Your task to perform on an android device: Clear the shopping cart on walmart.com. Search for "logitech g910" on walmart.com, select the first entry, add it to the cart, then select checkout. Image 0: 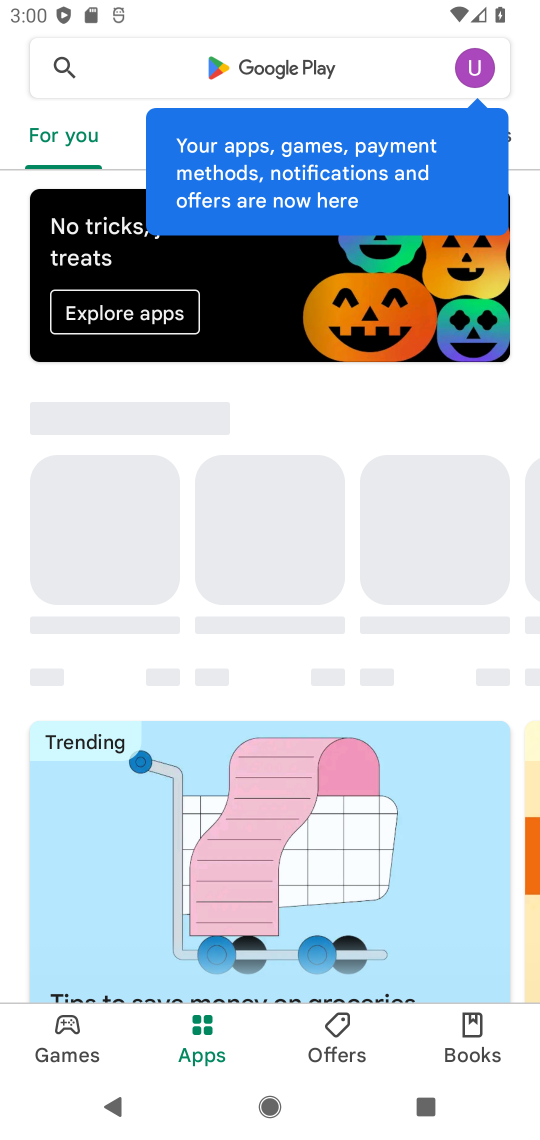
Step 0: press home button
Your task to perform on an android device: Clear the shopping cart on walmart.com. Search for "logitech g910" on walmart.com, select the first entry, add it to the cart, then select checkout. Image 1: 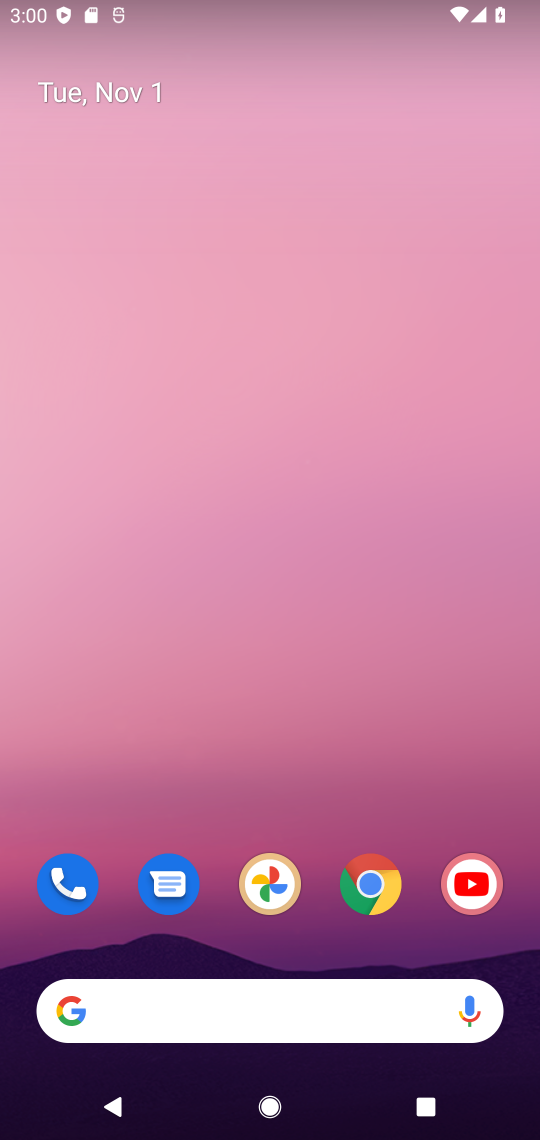
Step 1: click (363, 902)
Your task to perform on an android device: Clear the shopping cart on walmart.com. Search for "logitech g910" on walmart.com, select the first entry, add it to the cart, then select checkout. Image 2: 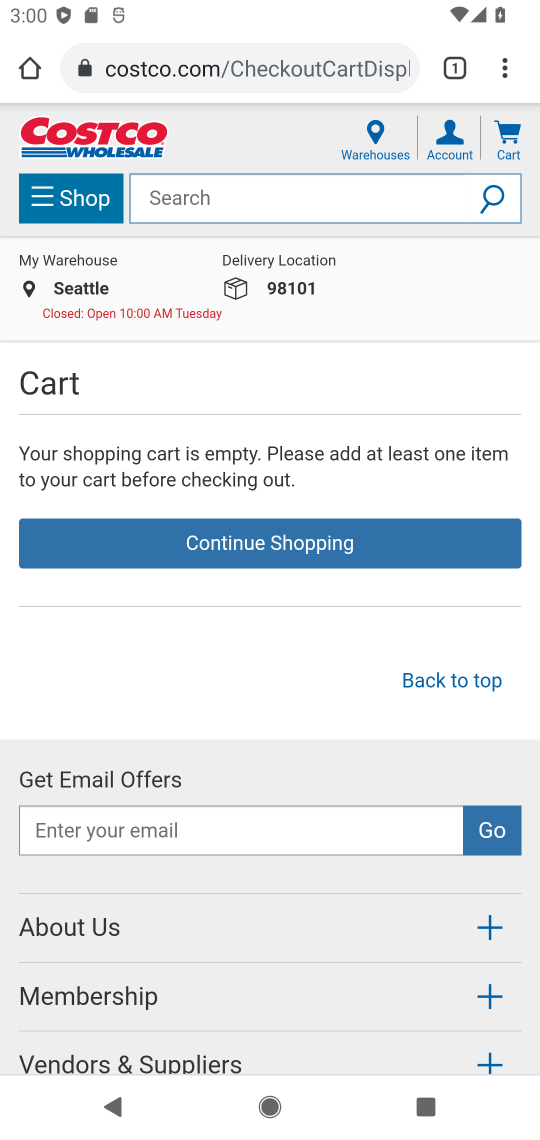
Step 2: click (314, 65)
Your task to perform on an android device: Clear the shopping cart on walmart.com. Search for "logitech g910" on walmart.com, select the first entry, add it to the cart, then select checkout. Image 3: 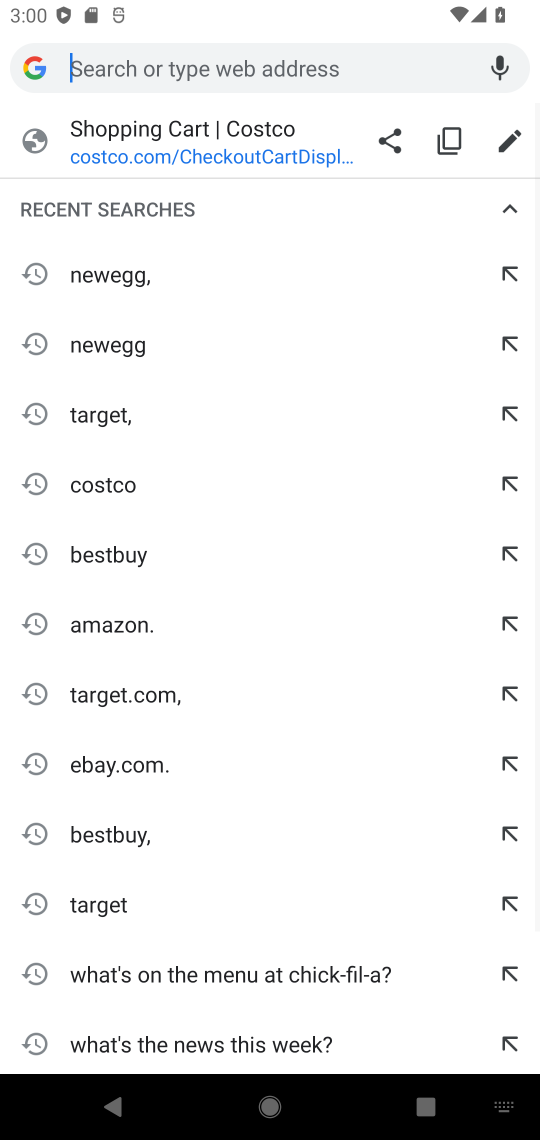
Step 3: type "walmart.com"
Your task to perform on an android device: Clear the shopping cart on walmart.com. Search for "logitech g910" on walmart.com, select the first entry, add it to the cart, then select checkout. Image 4: 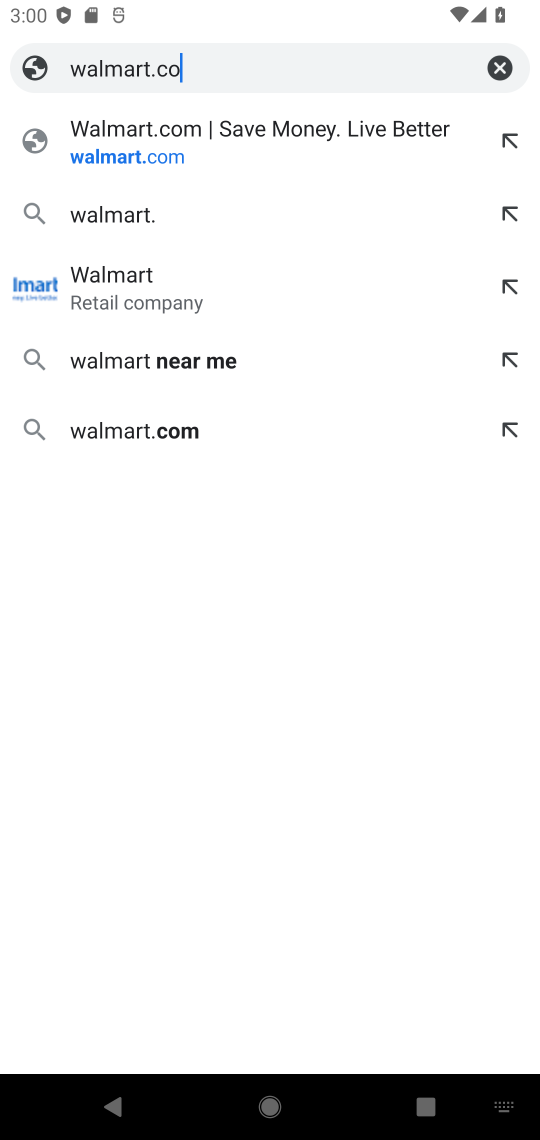
Step 4: press enter
Your task to perform on an android device: Clear the shopping cart on walmart.com. Search for "logitech g910" on walmart.com, select the first entry, add it to the cart, then select checkout. Image 5: 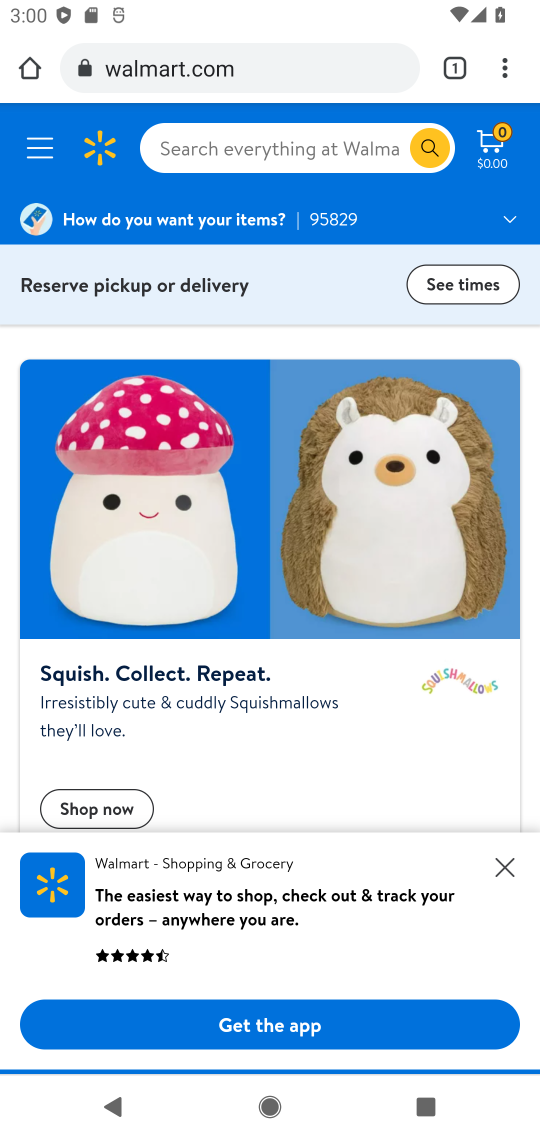
Step 5: click (483, 144)
Your task to perform on an android device: Clear the shopping cart on walmart.com. Search for "logitech g910" on walmart.com, select the first entry, add it to the cart, then select checkout. Image 6: 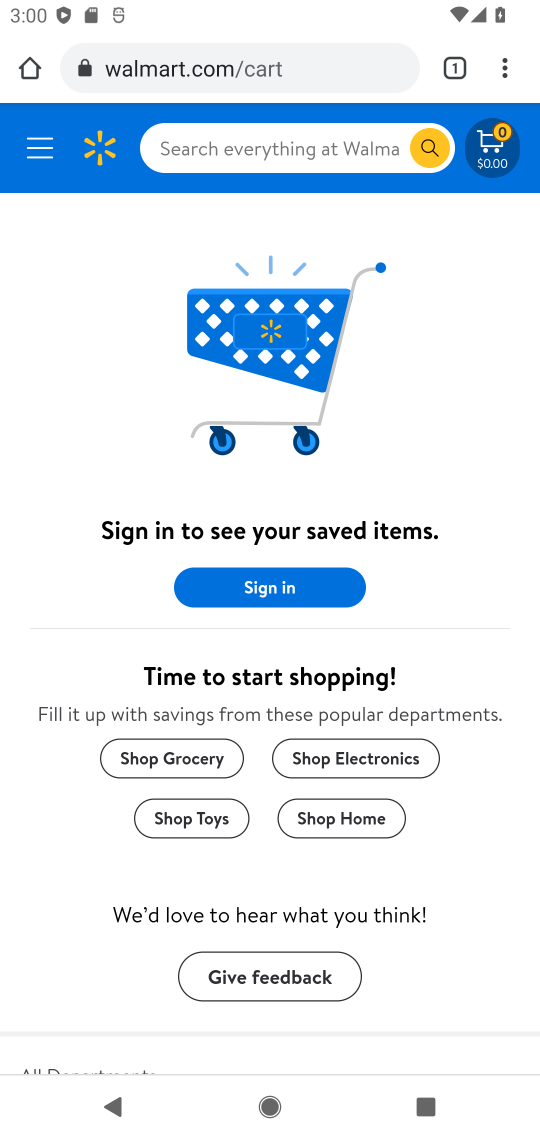
Step 6: click (307, 134)
Your task to perform on an android device: Clear the shopping cart on walmart.com. Search for "logitech g910" on walmart.com, select the first entry, add it to the cart, then select checkout. Image 7: 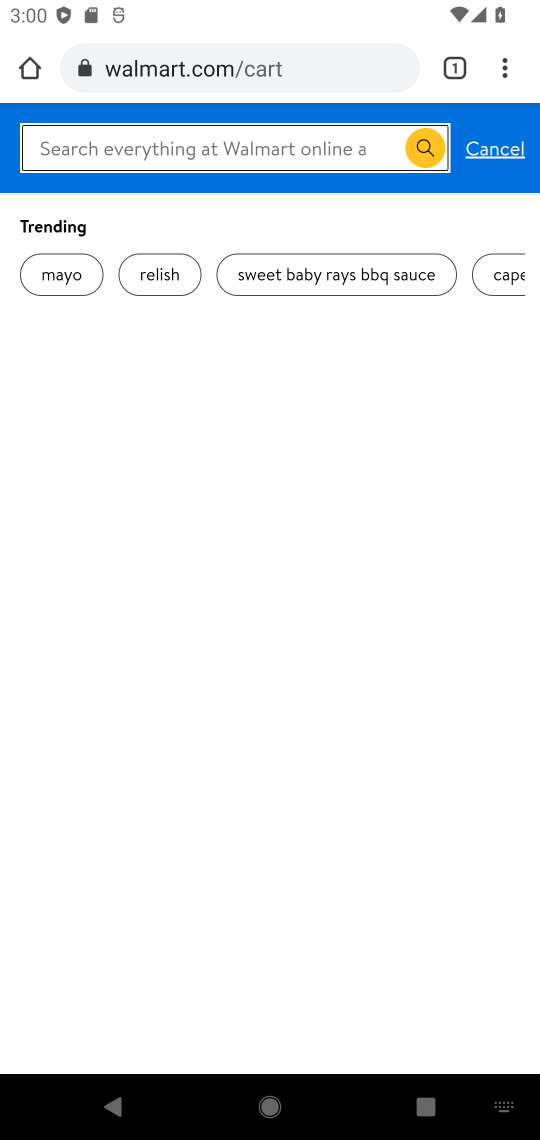
Step 7: type "logitech g910"
Your task to perform on an android device: Clear the shopping cart on walmart.com. Search for "logitech g910" on walmart.com, select the first entry, add it to the cart, then select checkout. Image 8: 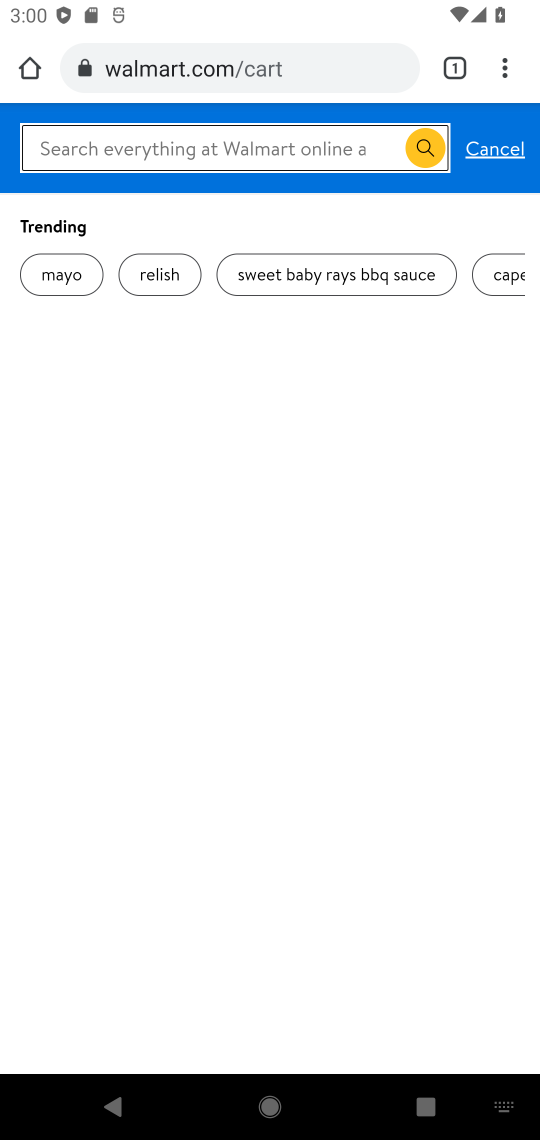
Step 8: press enter
Your task to perform on an android device: Clear the shopping cart on walmart.com. Search for "logitech g910" on walmart.com, select the first entry, add it to the cart, then select checkout. Image 9: 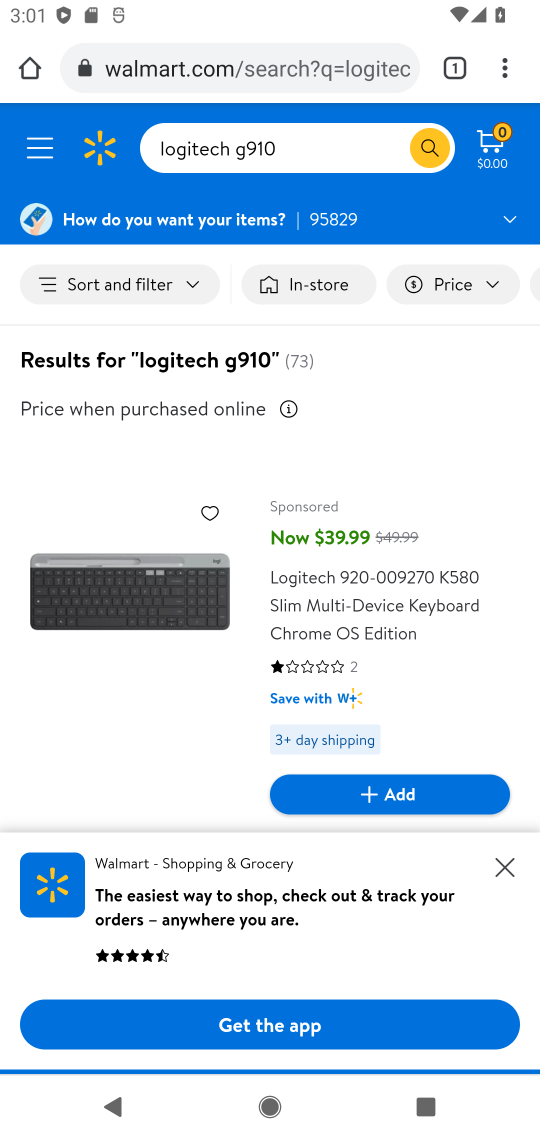
Step 9: click (168, 613)
Your task to perform on an android device: Clear the shopping cart on walmart.com. Search for "logitech g910" on walmart.com, select the first entry, add it to the cart, then select checkout. Image 10: 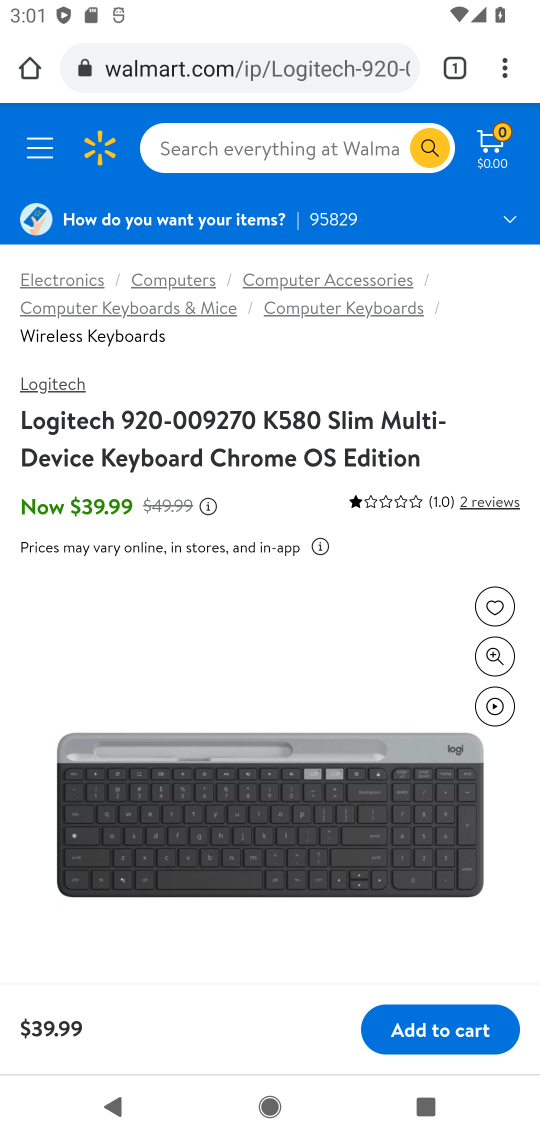
Step 10: drag from (273, 828) to (356, 490)
Your task to perform on an android device: Clear the shopping cart on walmart.com. Search for "logitech g910" on walmart.com, select the first entry, add it to the cart, then select checkout. Image 11: 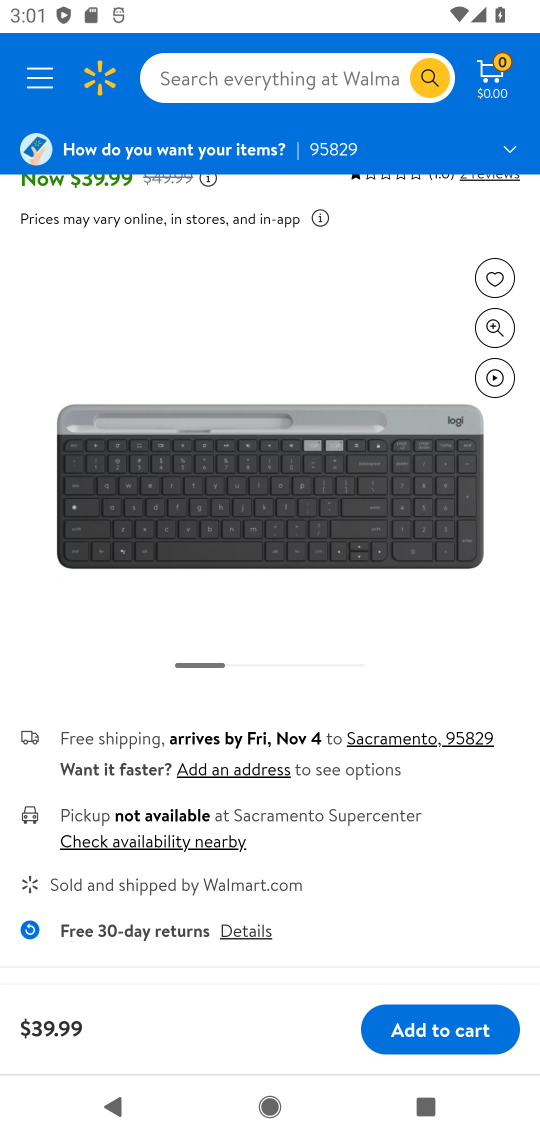
Step 11: click (471, 1037)
Your task to perform on an android device: Clear the shopping cart on walmart.com. Search for "logitech g910" on walmart.com, select the first entry, add it to the cart, then select checkout. Image 12: 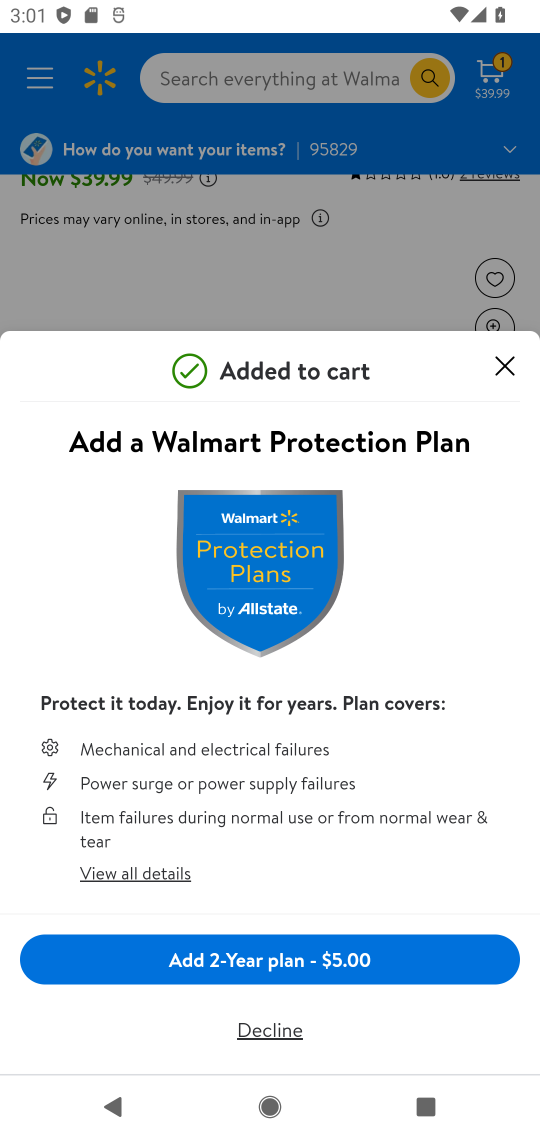
Step 12: click (510, 355)
Your task to perform on an android device: Clear the shopping cart on walmart.com. Search for "logitech g910" on walmart.com, select the first entry, add it to the cart, then select checkout. Image 13: 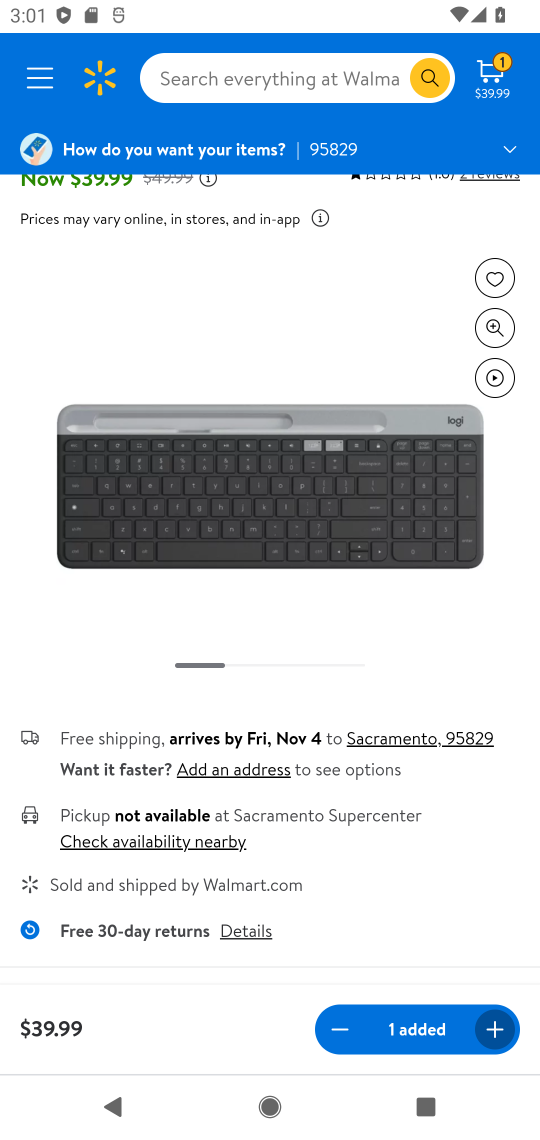
Step 13: click (496, 83)
Your task to perform on an android device: Clear the shopping cart on walmart.com. Search for "logitech g910" on walmart.com, select the first entry, add it to the cart, then select checkout. Image 14: 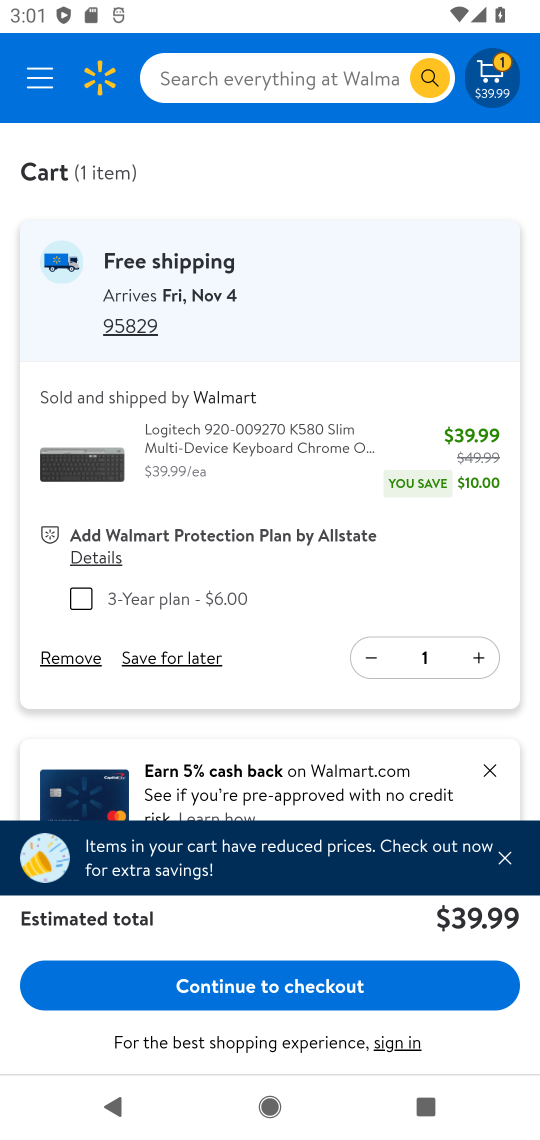
Step 14: click (362, 981)
Your task to perform on an android device: Clear the shopping cart on walmart.com. Search for "logitech g910" on walmart.com, select the first entry, add it to the cart, then select checkout. Image 15: 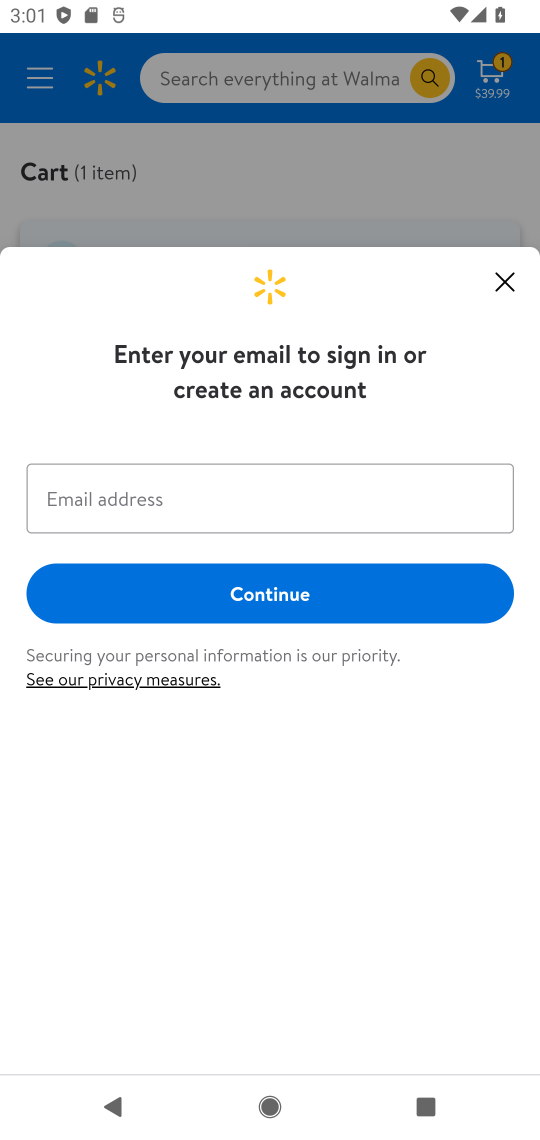
Step 15: task complete